Your task to perform on an android device: What is the news today? Image 0: 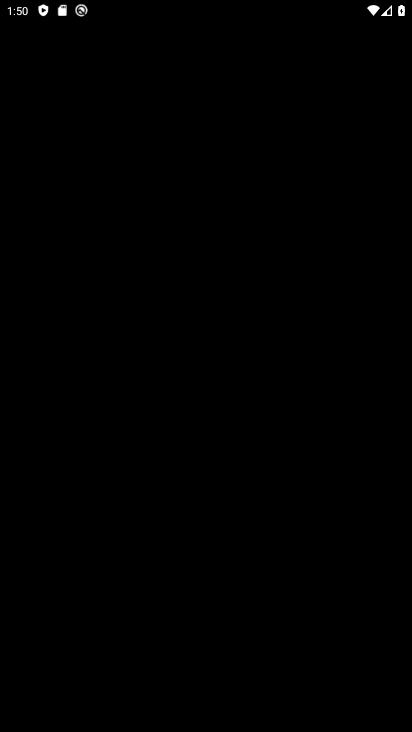
Step 0: press home button
Your task to perform on an android device: What is the news today? Image 1: 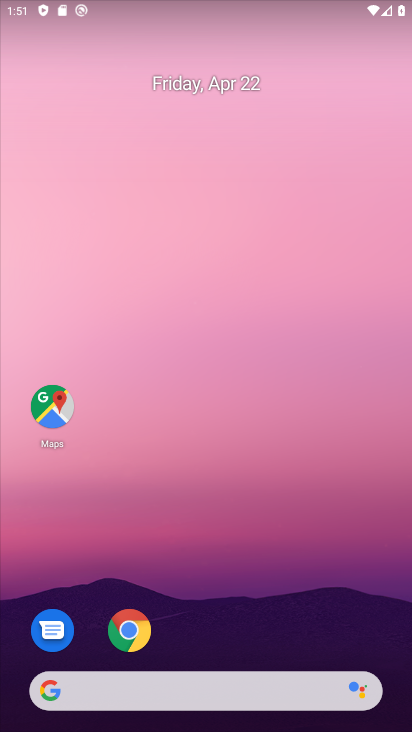
Step 1: drag from (213, 651) to (283, 291)
Your task to perform on an android device: What is the news today? Image 2: 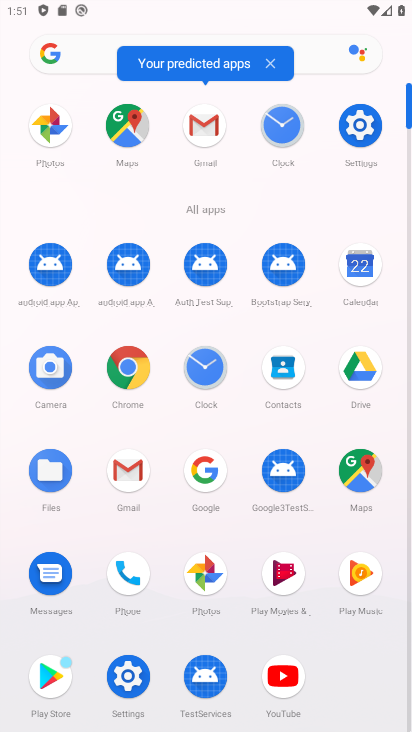
Step 2: click (207, 467)
Your task to perform on an android device: What is the news today? Image 3: 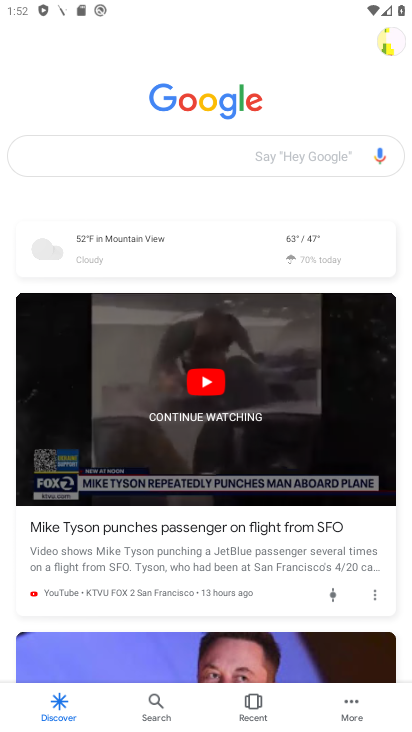
Step 3: task complete